Your task to perform on an android device: delete the emails in spam in the gmail app Image 0: 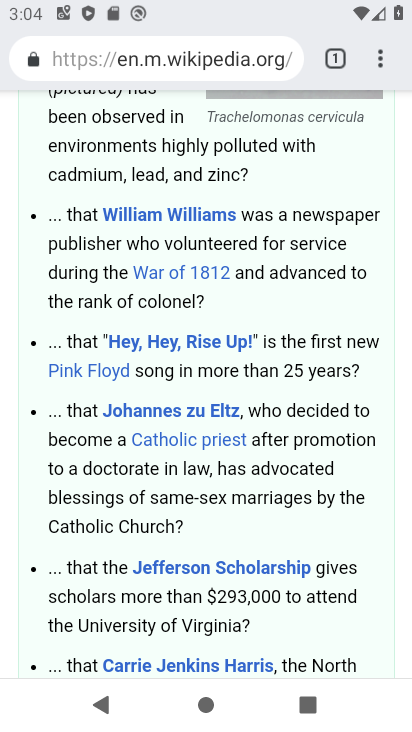
Step 0: press home button
Your task to perform on an android device: delete the emails in spam in the gmail app Image 1: 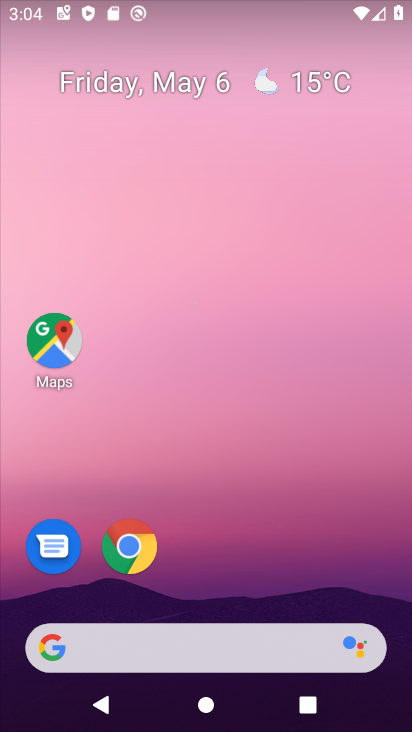
Step 1: drag from (192, 625) to (251, 297)
Your task to perform on an android device: delete the emails in spam in the gmail app Image 2: 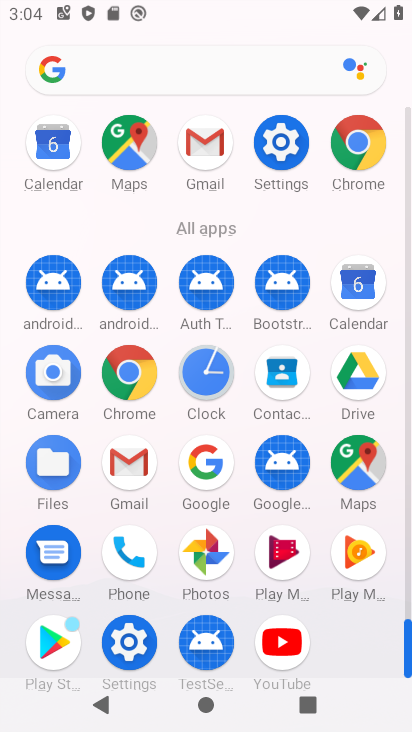
Step 2: click (134, 468)
Your task to perform on an android device: delete the emails in spam in the gmail app Image 3: 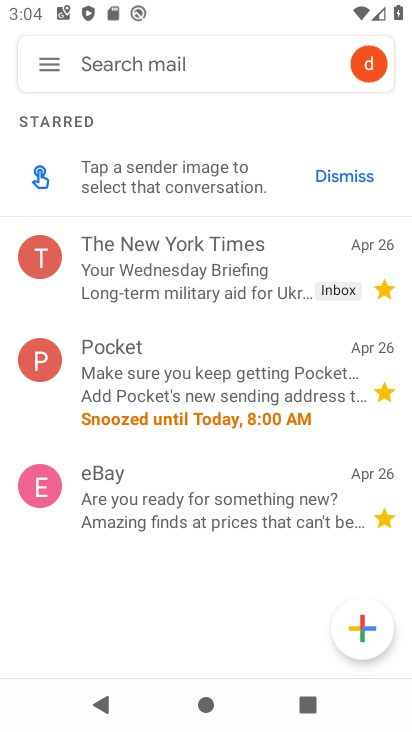
Step 3: click (47, 62)
Your task to perform on an android device: delete the emails in spam in the gmail app Image 4: 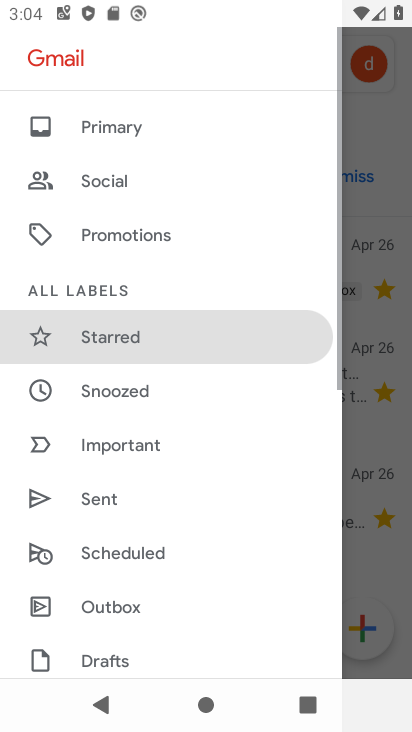
Step 4: drag from (117, 638) to (173, 331)
Your task to perform on an android device: delete the emails in spam in the gmail app Image 5: 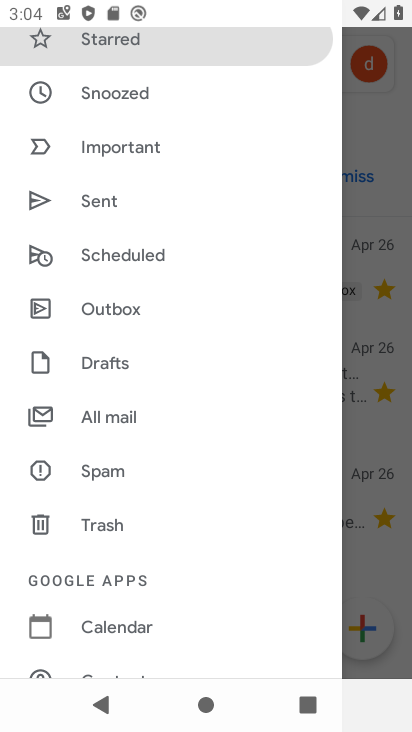
Step 5: click (102, 470)
Your task to perform on an android device: delete the emails in spam in the gmail app Image 6: 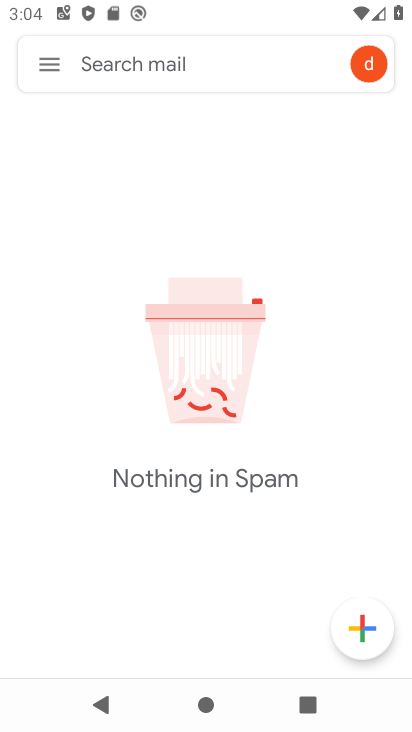
Step 6: task complete